Your task to perform on an android device: set default search engine in the chrome app Image 0: 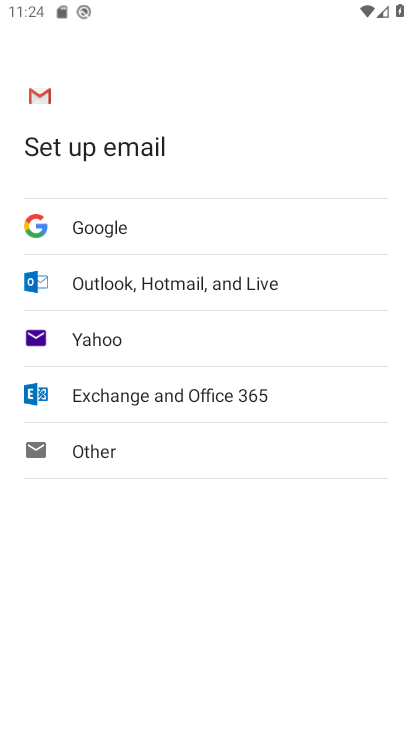
Step 0: click (143, 233)
Your task to perform on an android device: set default search engine in the chrome app Image 1: 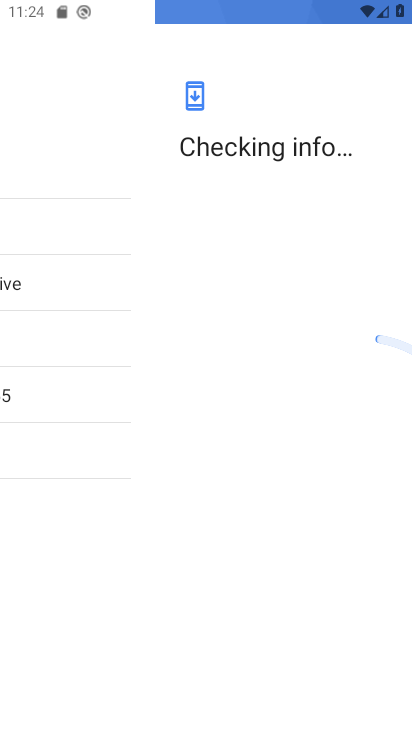
Step 1: press home button
Your task to perform on an android device: set default search engine in the chrome app Image 2: 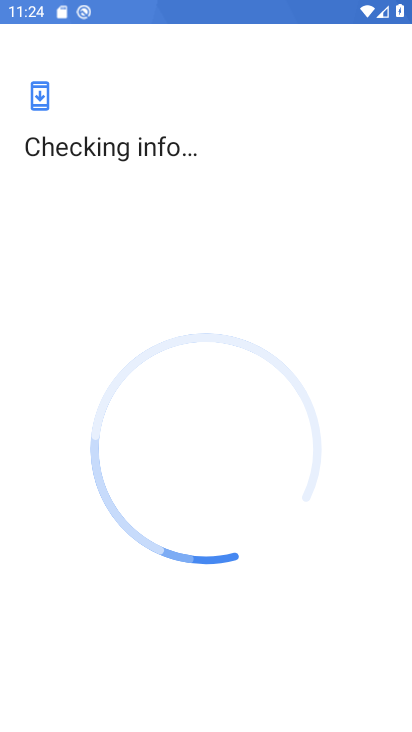
Step 2: press home button
Your task to perform on an android device: set default search engine in the chrome app Image 3: 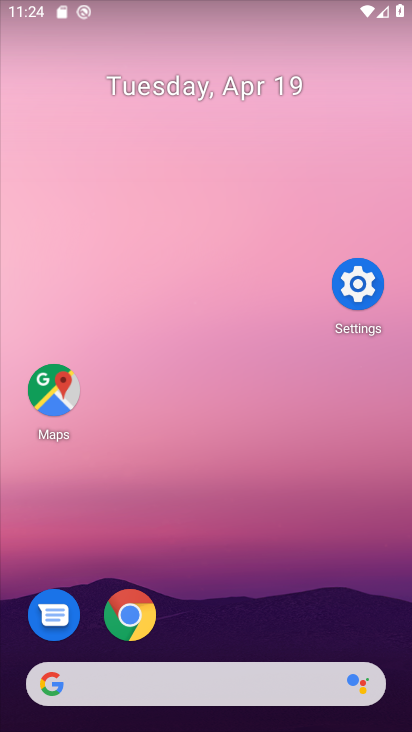
Step 3: drag from (199, 573) to (234, 92)
Your task to perform on an android device: set default search engine in the chrome app Image 4: 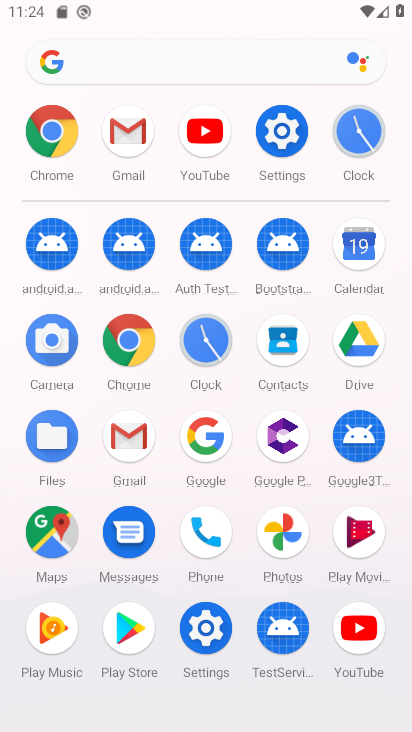
Step 4: click (129, 350)
Your task to perform on an android device: set default search engine in the chrome app Image 5: 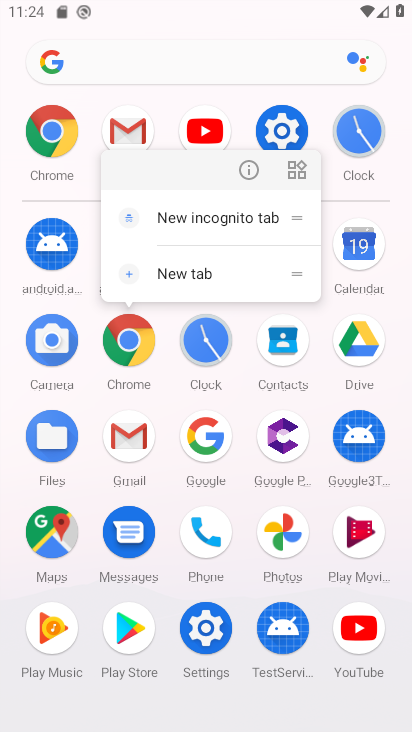
Step 5: click (250, 172)
Your task to perform on an android device: set default search engine in the chrome app Image 6: 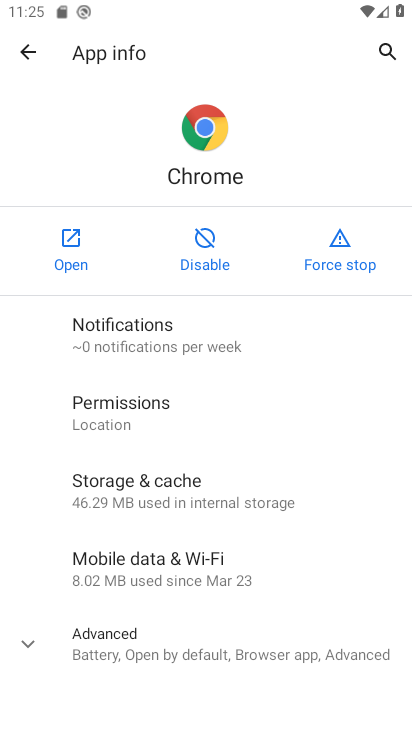
Step 6: click (89, 248)
Your task to perform on an android device: set default search engine in the chrome app Image 7: 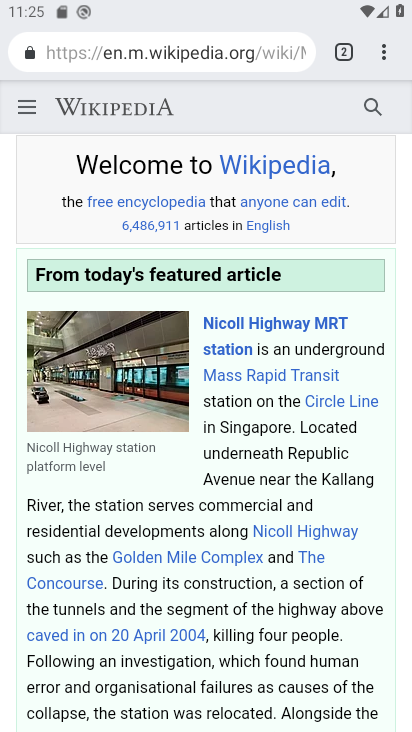
Step 7: drag from (390, 44) to (242, 654)
Your task to perform on an android device: set default search engine in the chrome app Image 8: 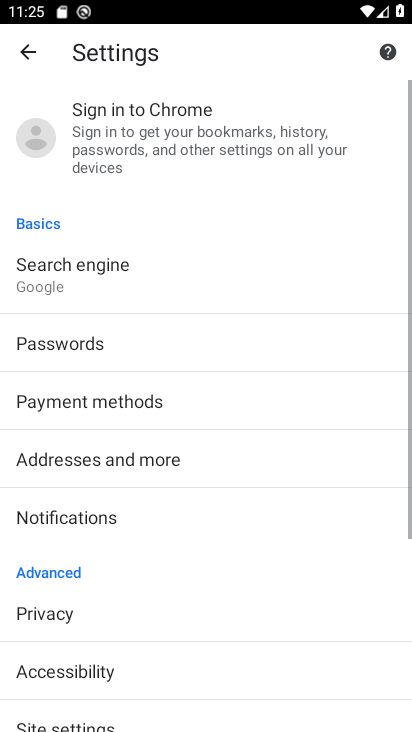
Step 8: drag from (218, 462) to (293, 181)
Your task to perform on an android device: set default search engine in the chrome app Image 9: 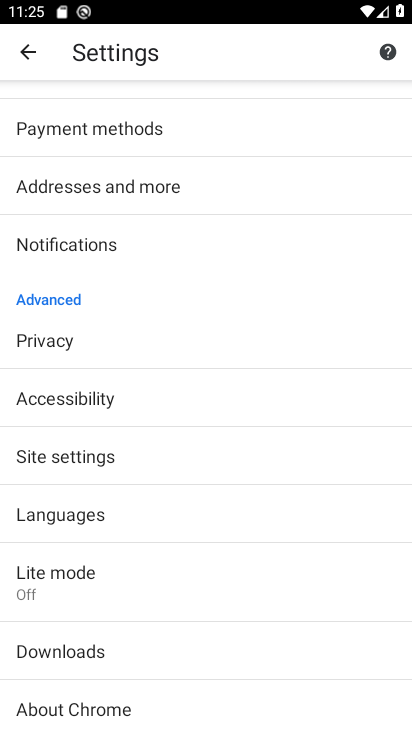
Step 9: drag from (203, 213) to (259, 649)
Your task to perform on an android device: set default search engine in the chrome app Image 10: 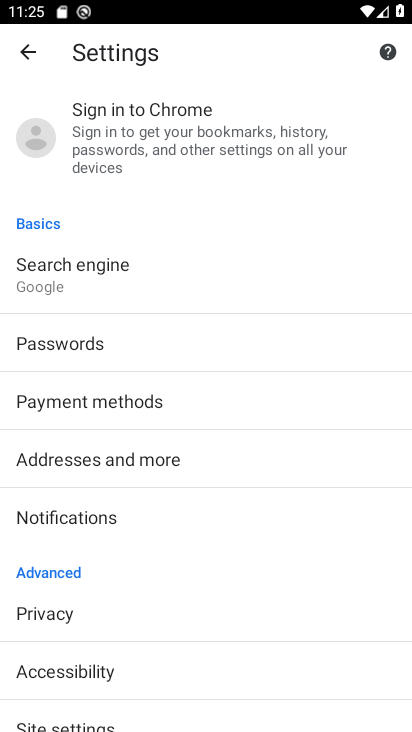
Step 10: click (159, 289)
Your task to perform on an android device: set default search engine in the chrome app Image 11: 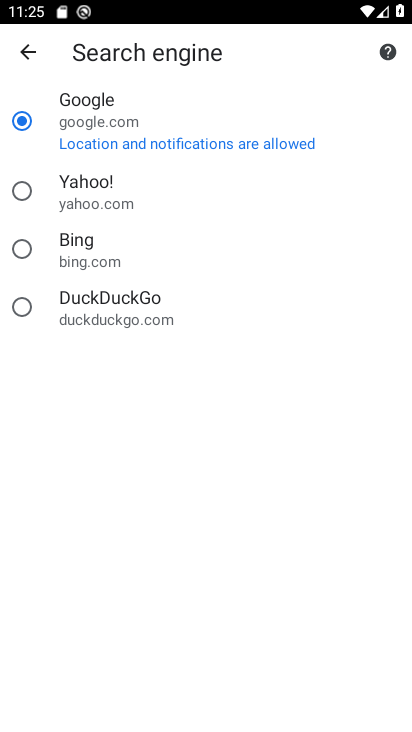
Step 11: task complete